Your task to perform on an android device: Go to Google maps Image 0: 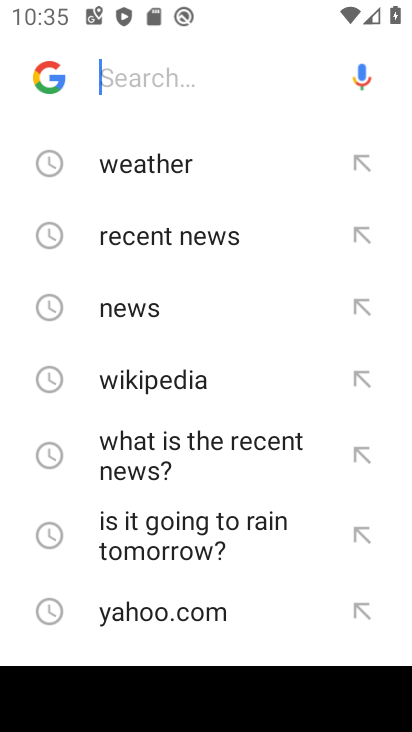
Step 0: press home button
Your task to perform on an android device: Go to Google maps Image 1: 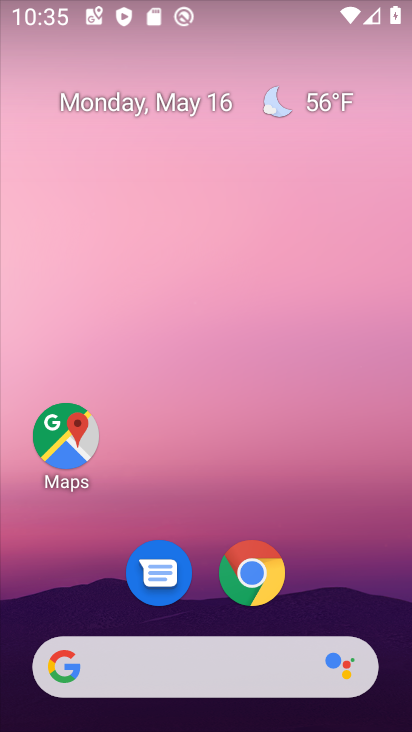
Step 1: drag from (187, 718) to (165, 114)
Your task to perform on an android device: Go to Google maps Image 2: 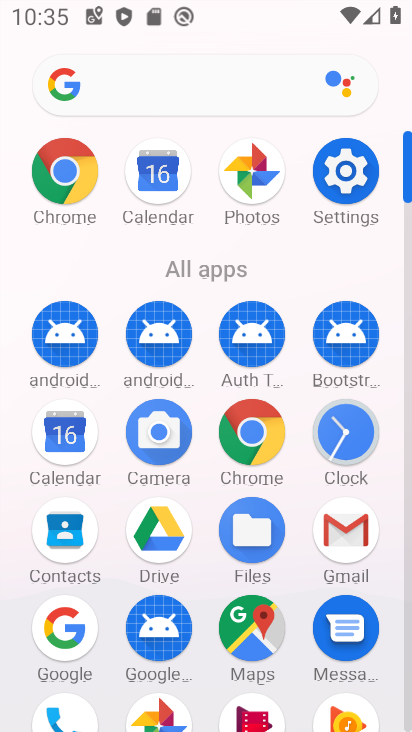
Step 2: click (255, 630)
Your task to perform on an android device: Go to Google maps Image 3: 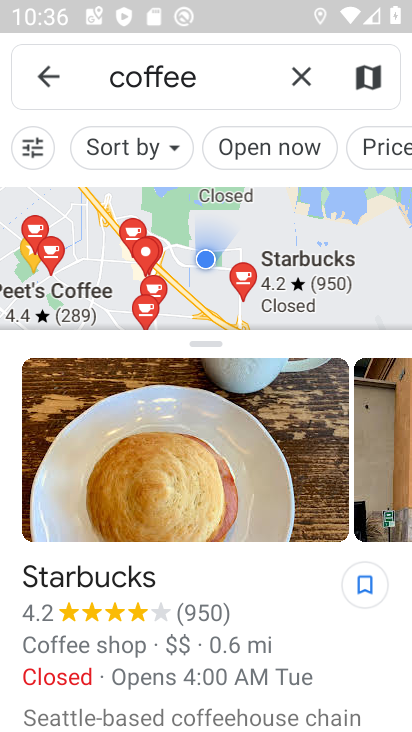
Step 3: task complete